Your task to perform on an android device: open app "Clock" Image 0: 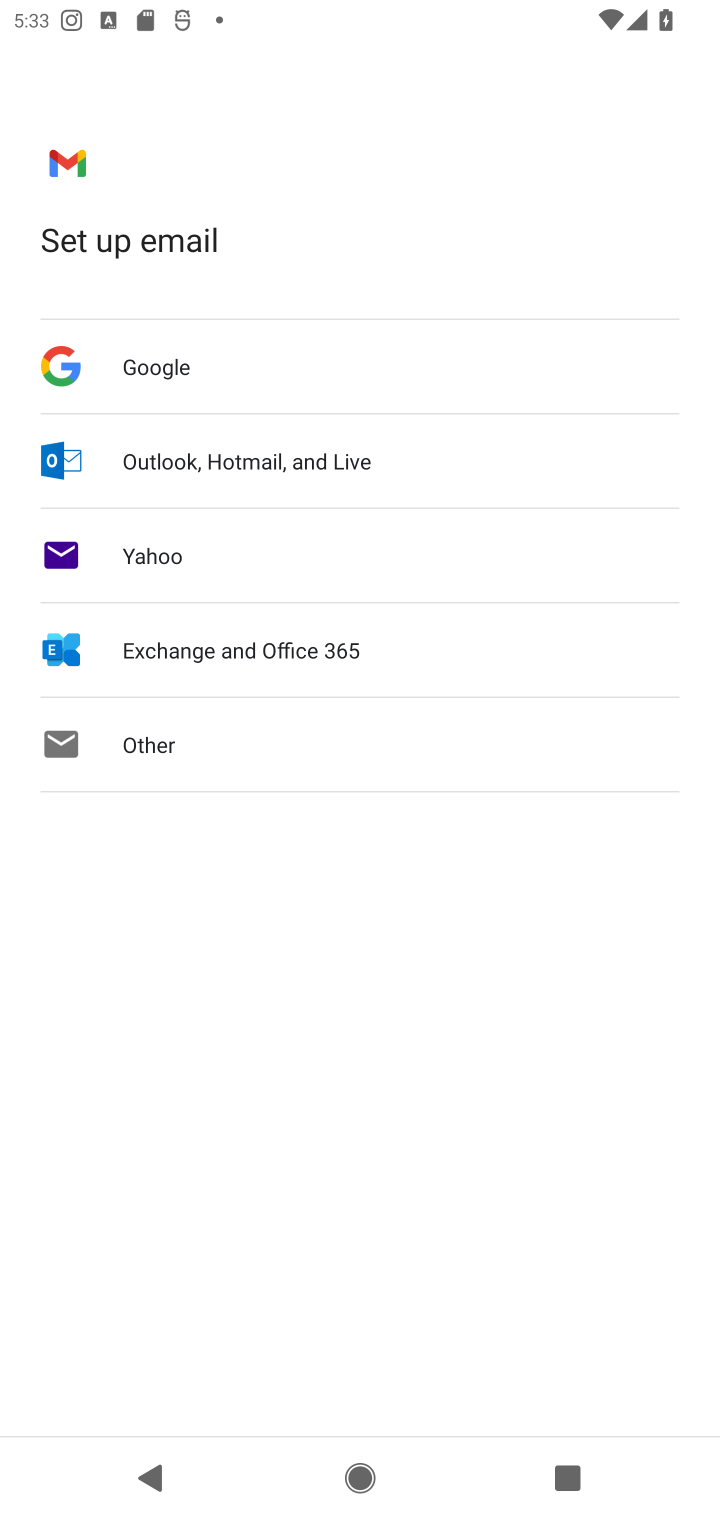
Step 0: press home button
Your task to perform on an android device: open app "Clock" Image 1: 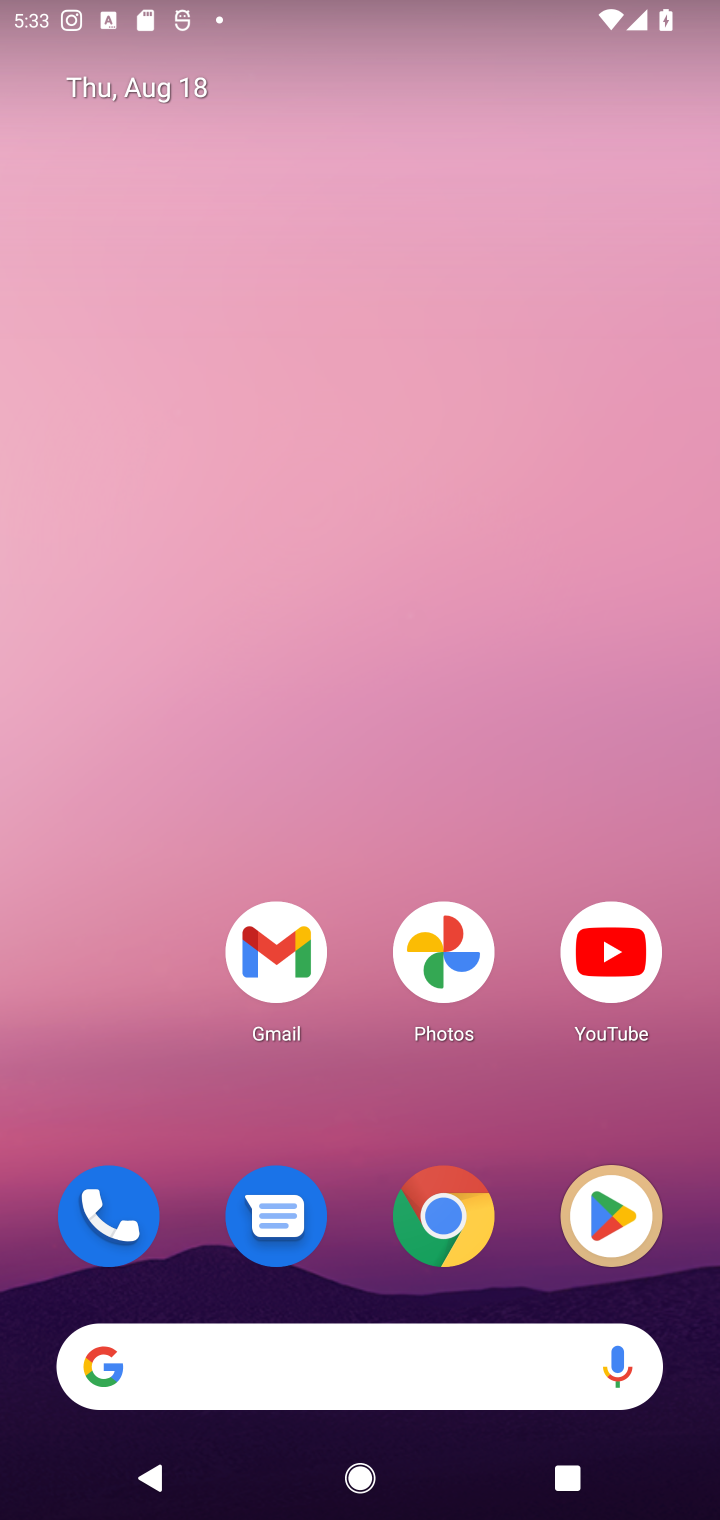
Step 1: click (568, 1235)
Your task to perform on an android device: open app "Clock" Image 2: 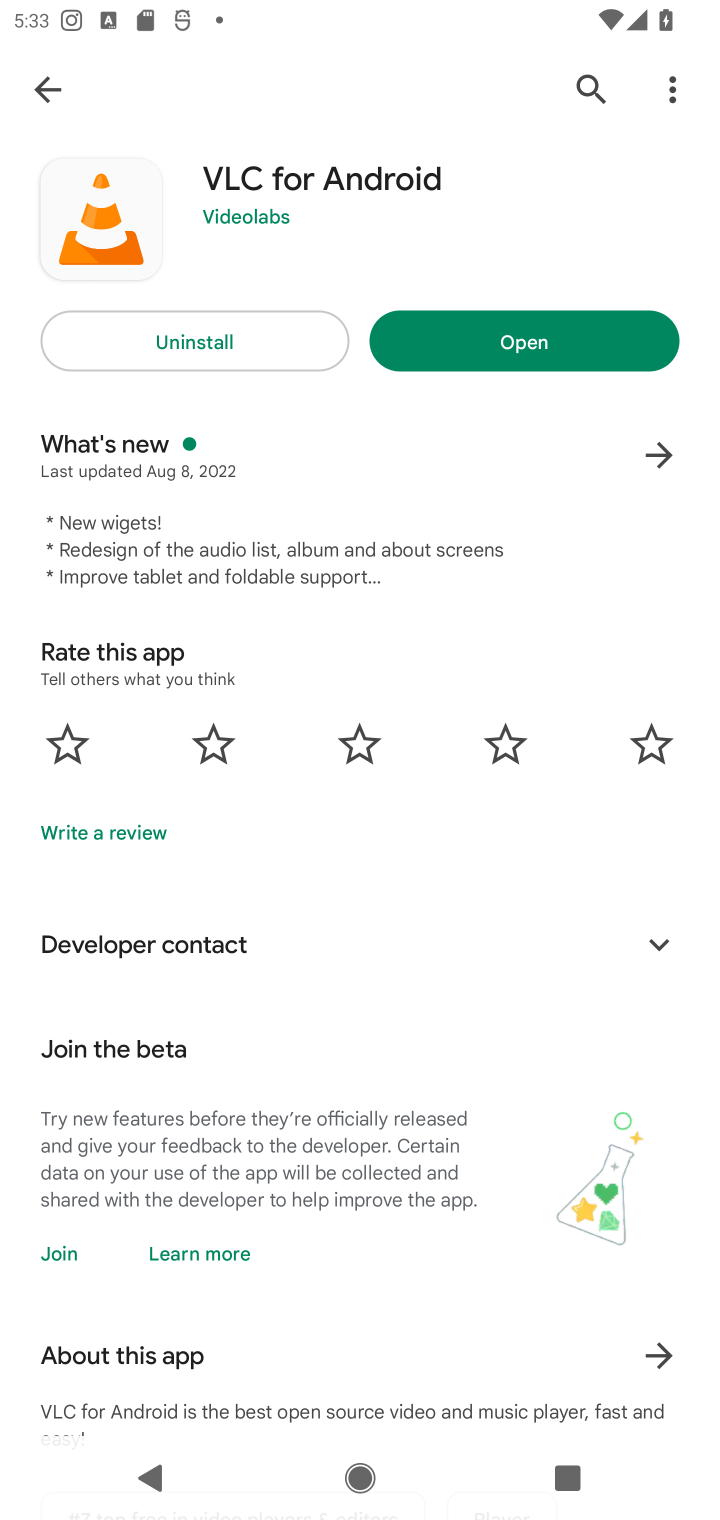
Step 2: click (600, 95)
Your task to perform on an android device: open app "Clock" Image 3: 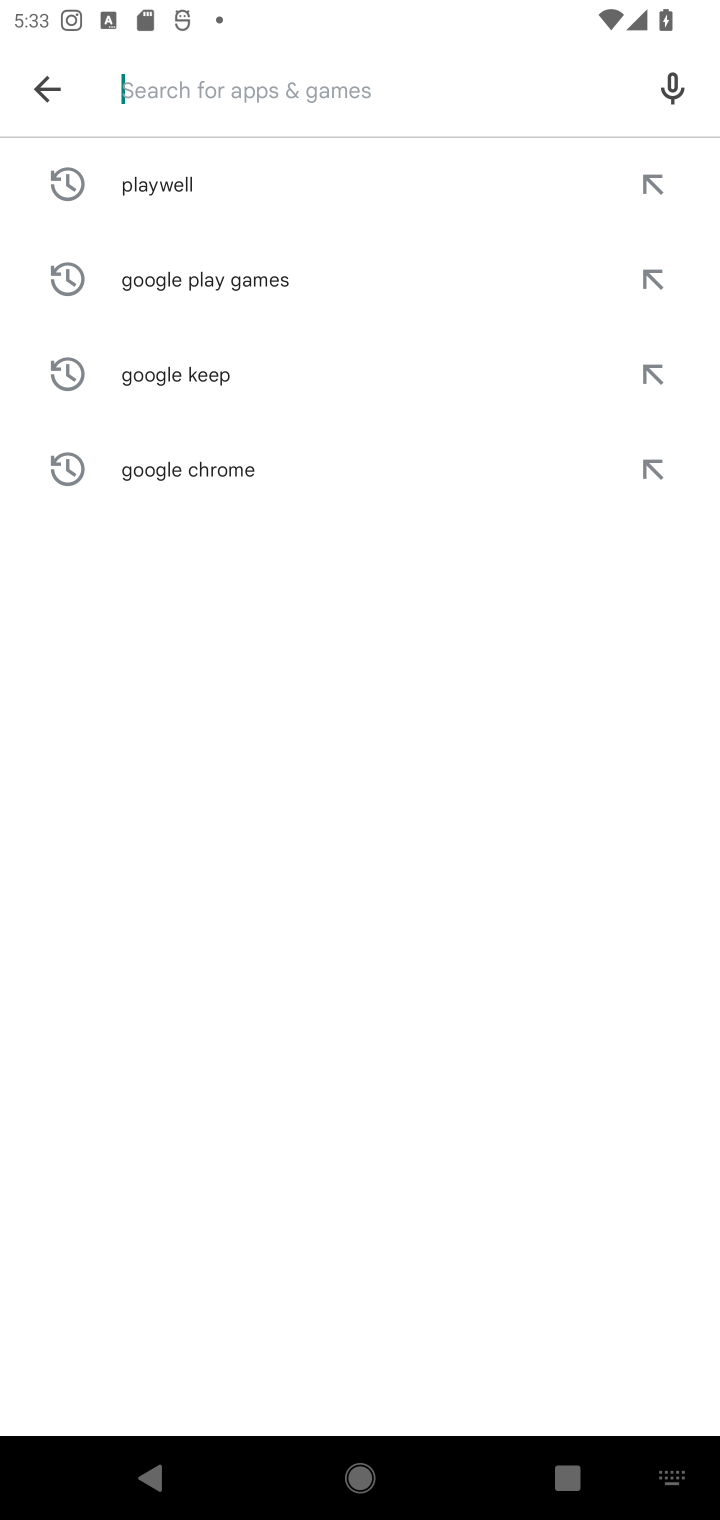
Step 3: type "Clock"
Your task to perform on an android device: open app "Clock" Image 4: 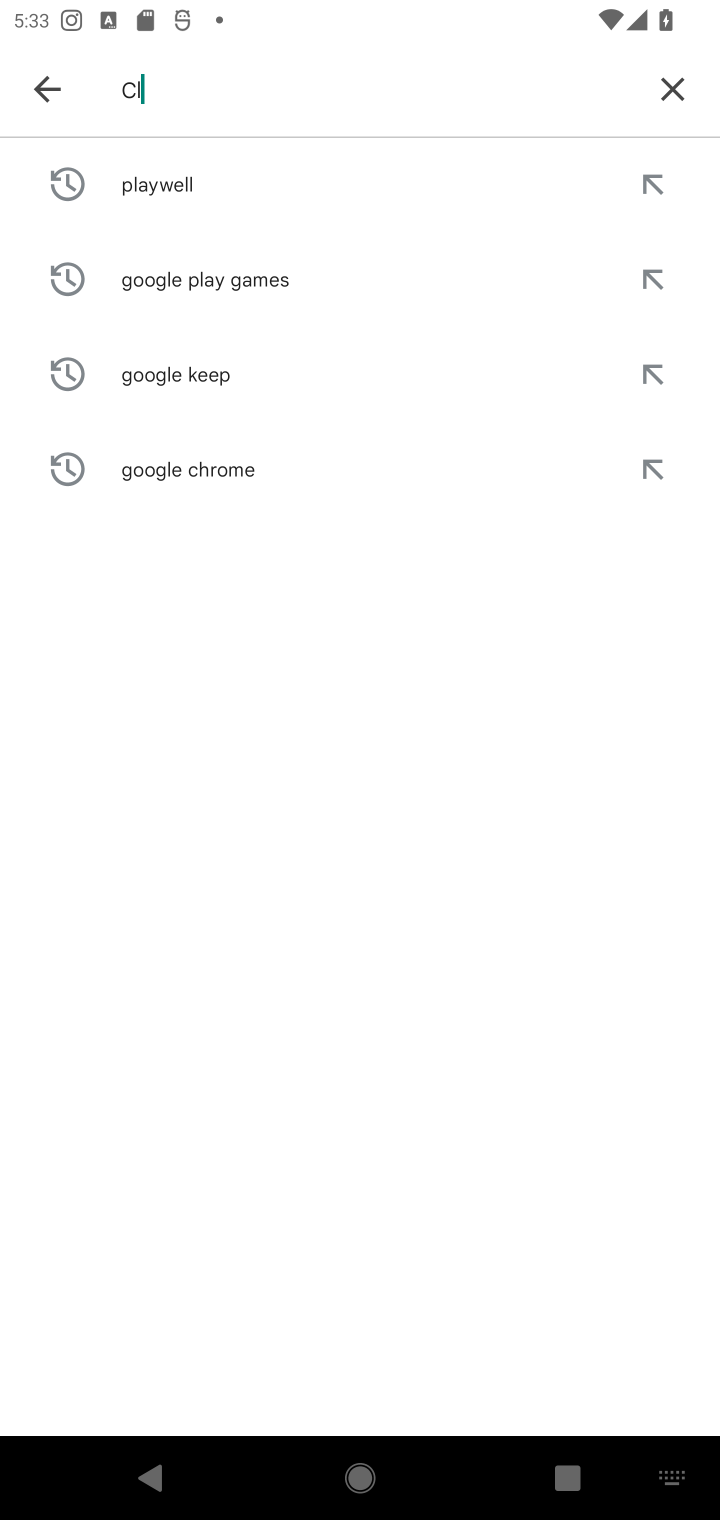
Step 4: type ""
Your task to perform on an android device: open app "Clock" Image 5: 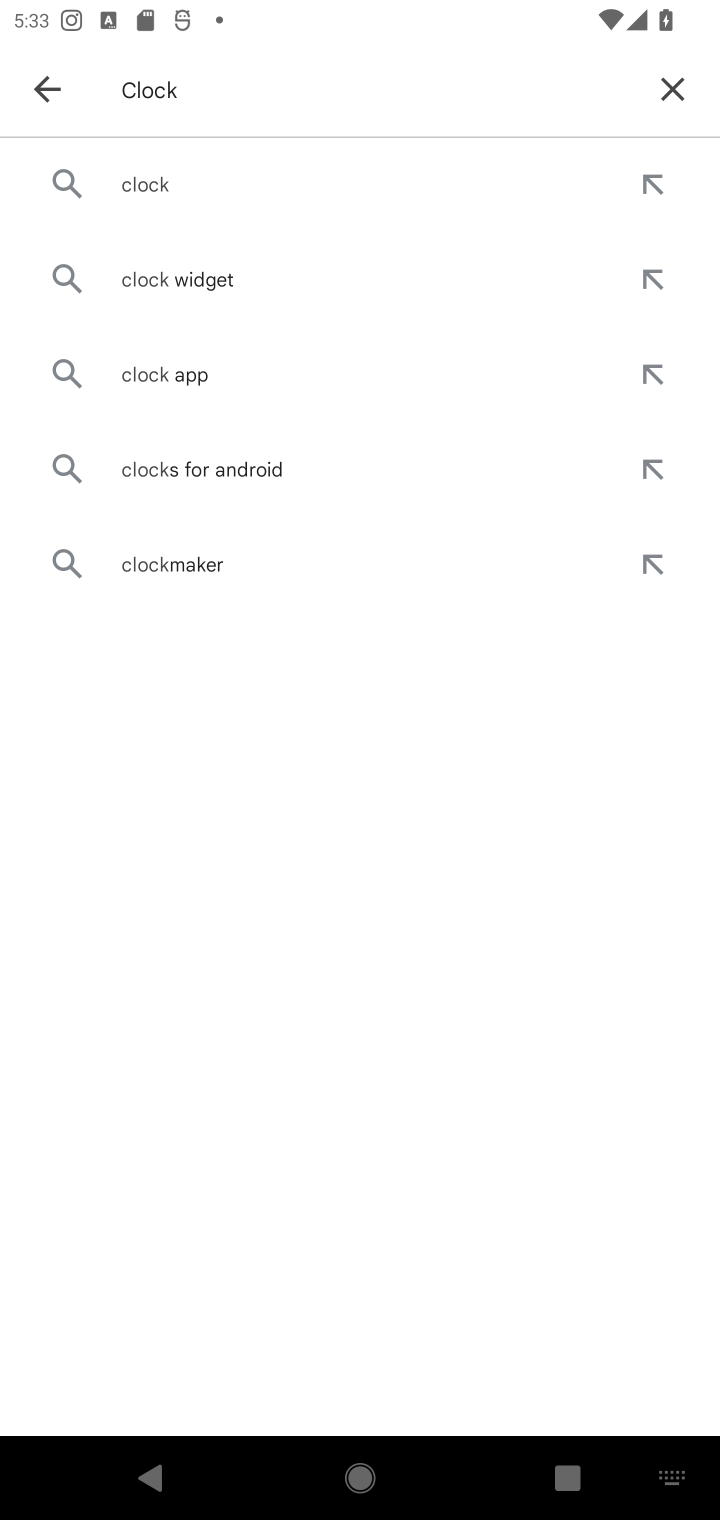
Step 5: click (227, 178)
Your task to perform on an android device: open app "Clock" Image 6: 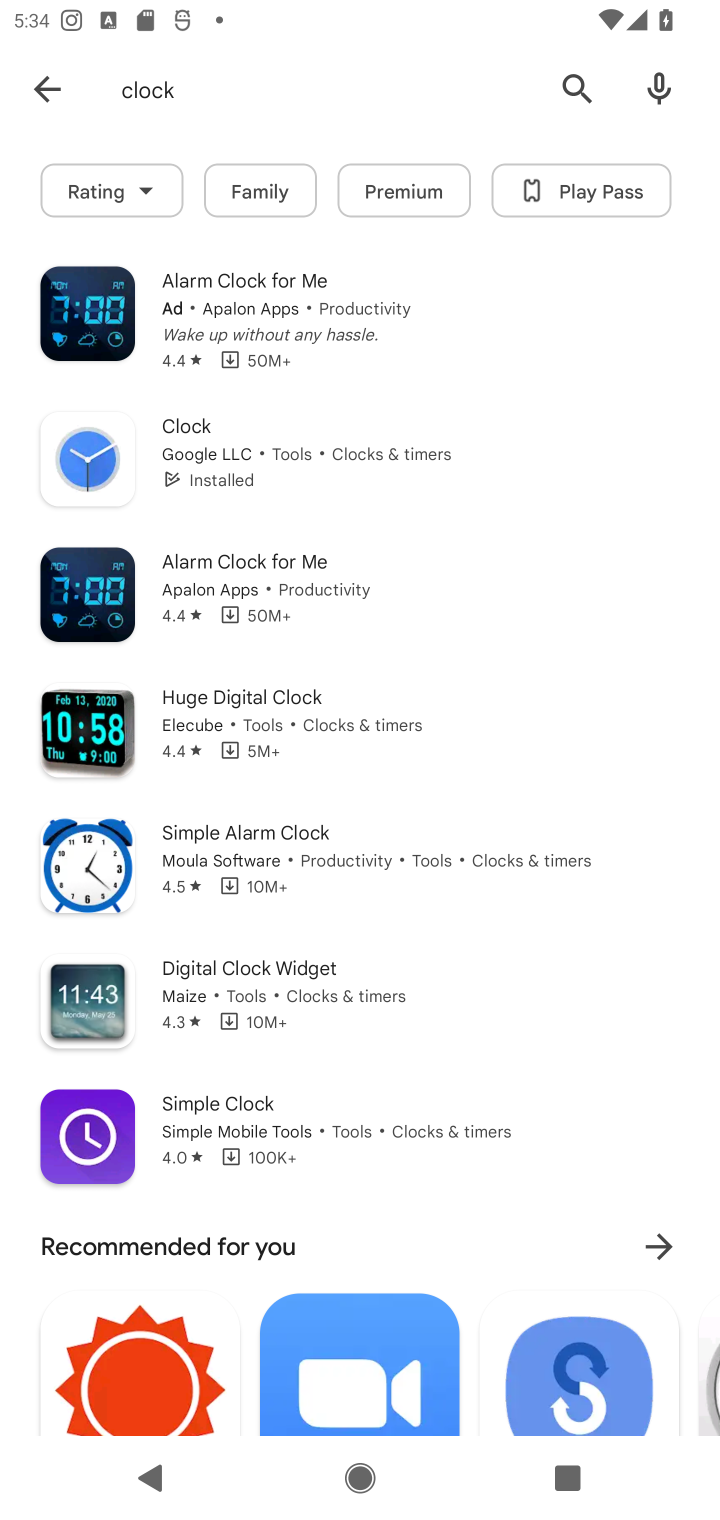
Step 6: click (419, 447)
Your task to perform on an android device: open app "Clock" Image 7: 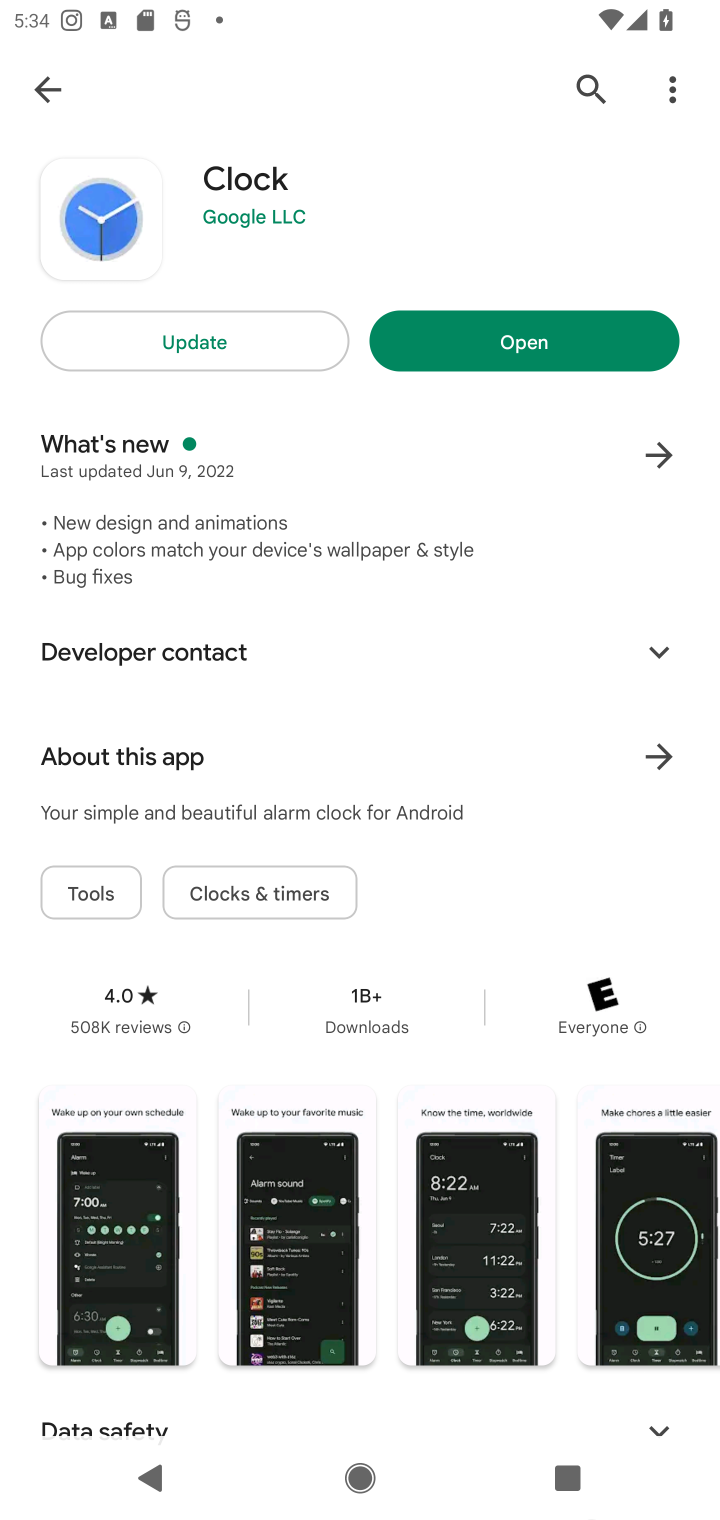
Step 7: click (538, 322)
Your task to perform on an android device: open app "Clock" Image 8: 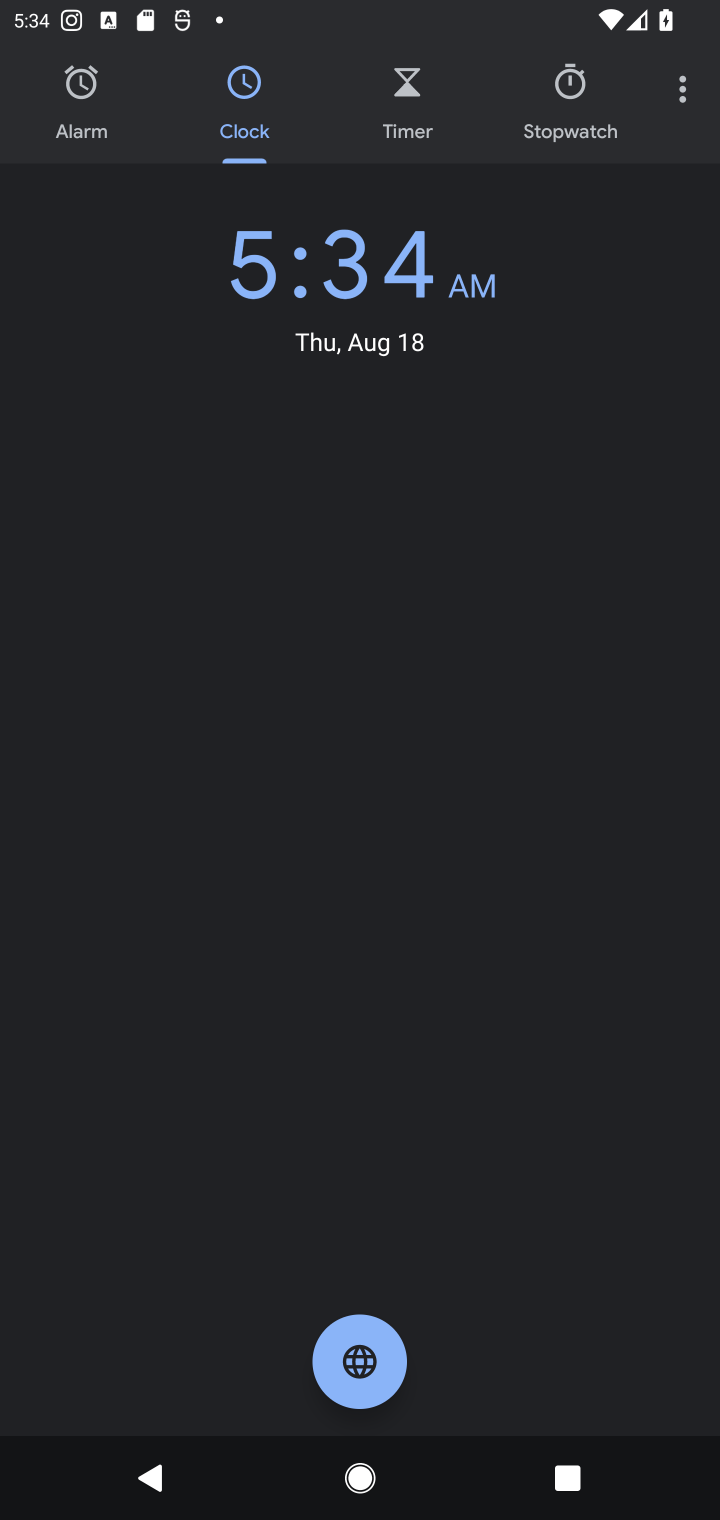
Step 8: task complete